Your task to perform on an android device: Set the phone to "Do not disturb". Image 0: 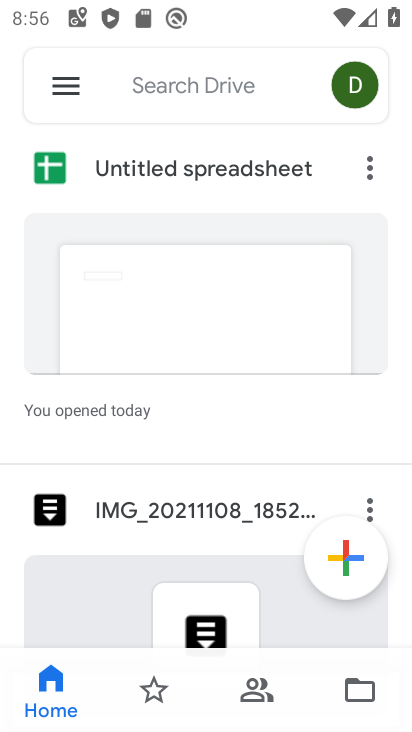
Step 0: press home button
Your task to perform on an android device: Set the phone to "Do not disturb". Image 1: 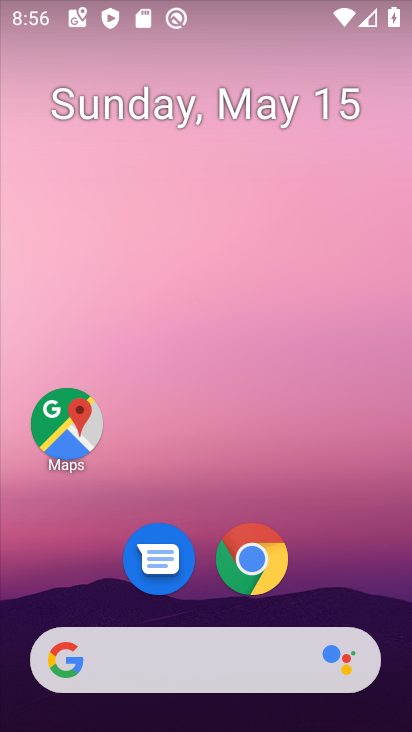
Step 1: drag from (350, 558) to (311, 118)
Your task to perform on an android device: Set the phone to "Do not disturb". Image 2: 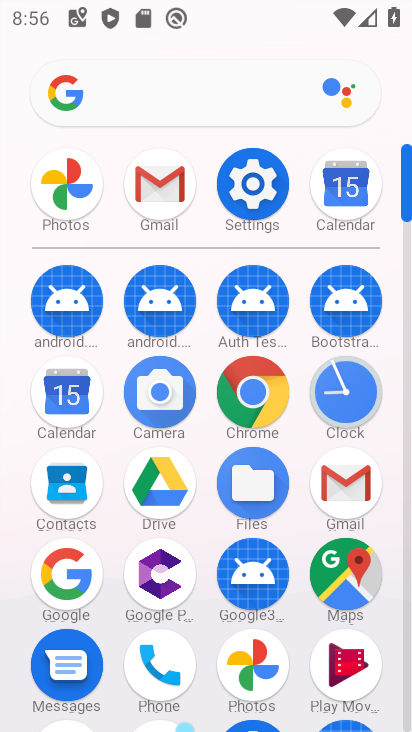
Step 2: click (262, 172)
Your task to perform on an android device: Set the phone to "Do not disturb". Image 3: 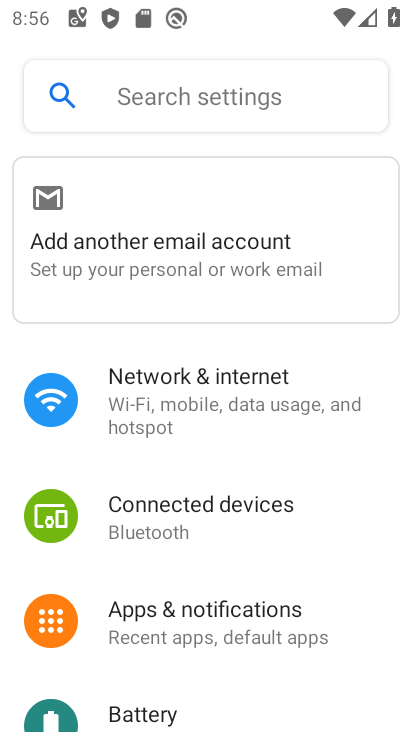
Step 3: drag from (220, 631) to (186, 214)
Your task to perform on an android device: Set the phone to "Do not disturb". Image 4: 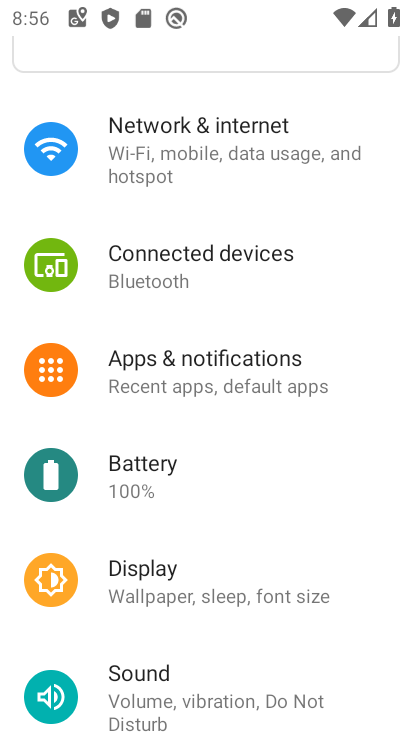
Step 4: click (245, 693)
Your task to perform on an android device: Set the phone to "Do not disturb". Image 5: 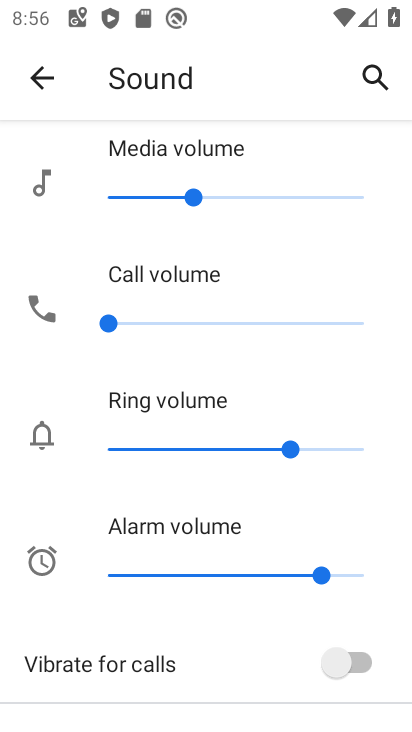
Step 5: drag from (252, 649) to (250, 106)
Your task to perform on an android device: Set the phone to "Do not disturb". Image 6: 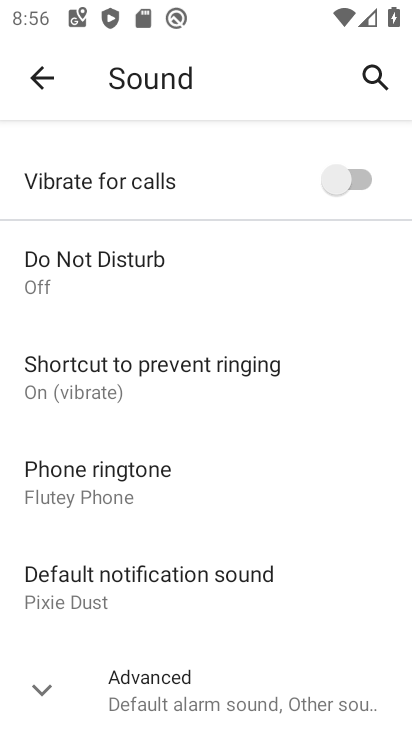
Step 6: drag from (197, 587) to (220, 317)
Your task to perform on an android device: Set the phone to "Do not disturb". Image 7: 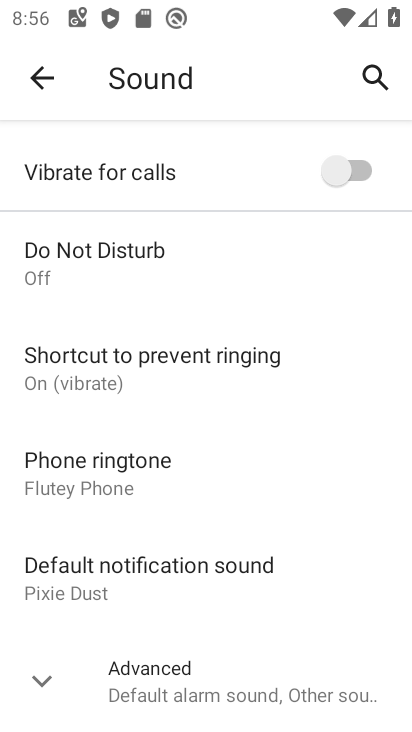
Step 7: click (209, 662)
Your task to perform on an android device: Set the phone to "Do not disturb". Image 8: 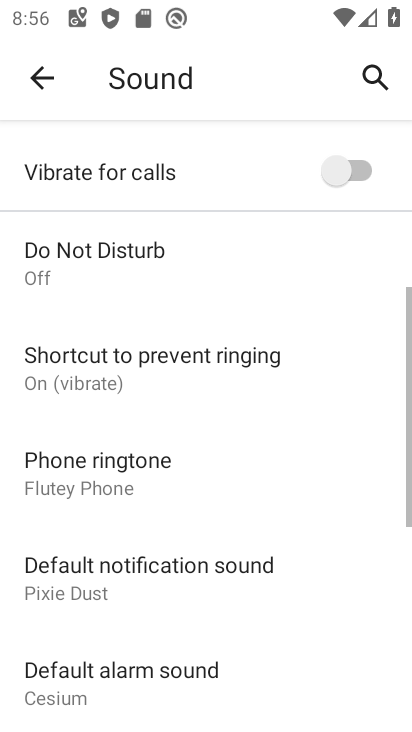
Step 8: drag from (272, 608) to (272, 249)
Your task to perform on an android device: Set the phone to "Do not disturb". Image 9: 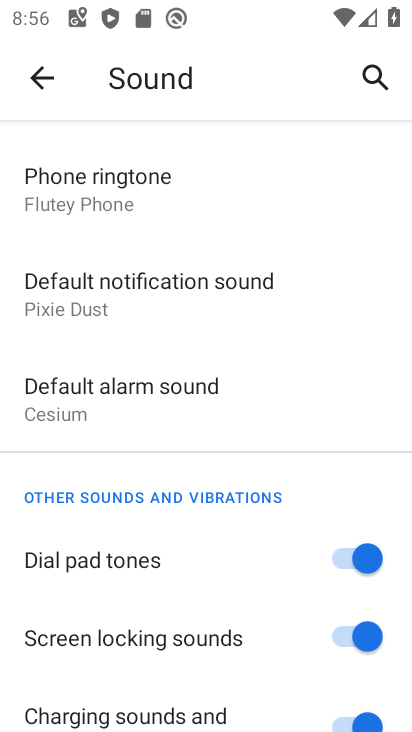
Step 9: drag from (208, 554) to (195, 234)
Your task to perform on an android device: Set the phone to "Do not disturb". Image 10: 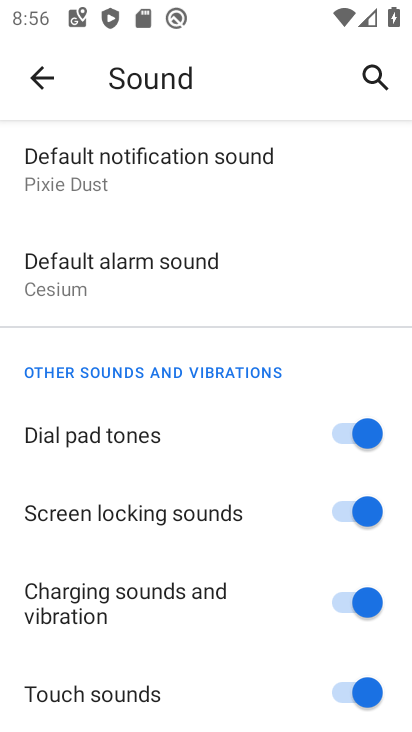
Step 10: drag from (203, 630) to (207, 72)
Your task to perform on an android device: Set the phone to "Do not disturb". Image 11: 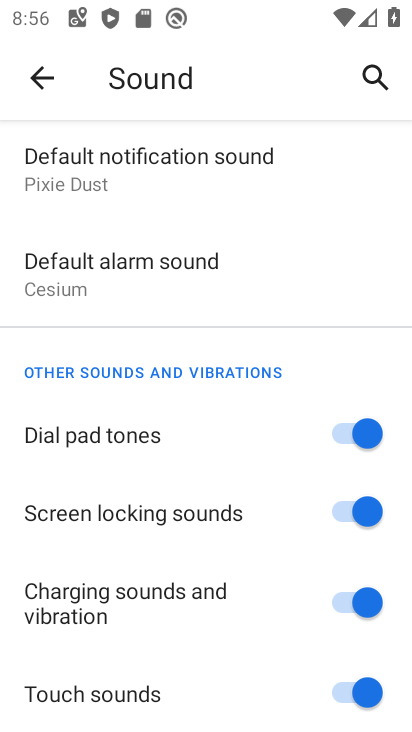
Step 11: drag from (215, 272) to (213, 665)
Your task to perform on an android device: Set the phone to "Do not disturb". Image 12: 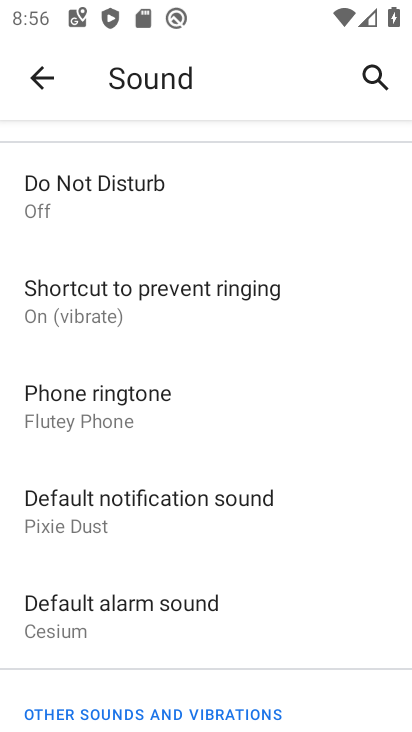
Step 12: click (193, 223)
Your task to perform on an android device: Set the phone to "Do not disturb". Image 13: 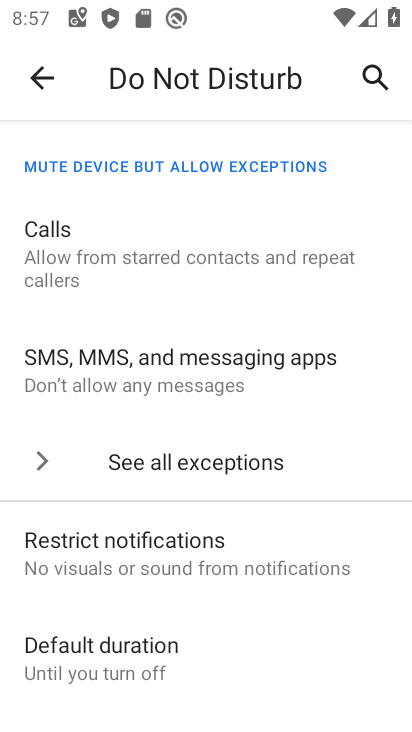
Step 13: drag from (193, 547) to (199, 82)
Your task to perform on an android device: Set the phone to "Do not disturb". Image 14: 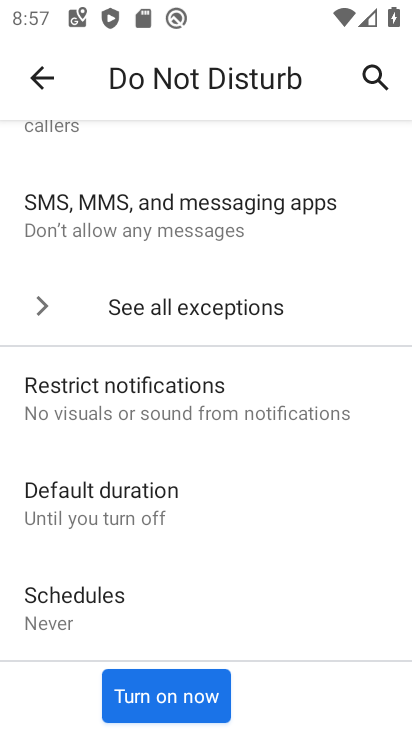
Step 14: click (178, 707)
Your task to perform on an android device: Set the phone to "Do not disturb". Image 15: 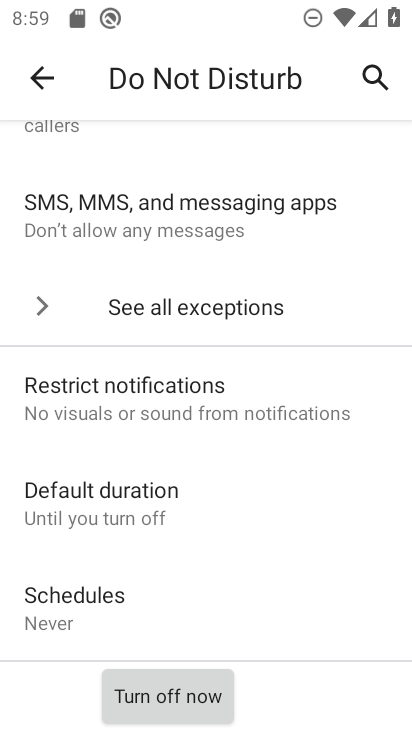
Step 15: task complete